Your task to perform on an android device: Open Reddit.com Image 0: 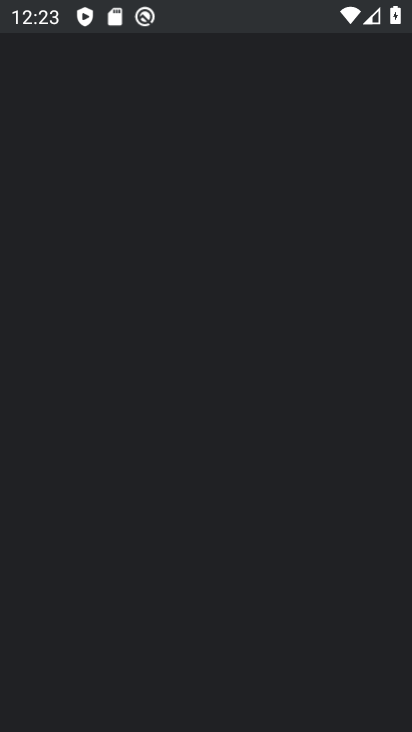
Step 0: press home button
Your task to perform on an android device: Open Reddit.com Image 1: 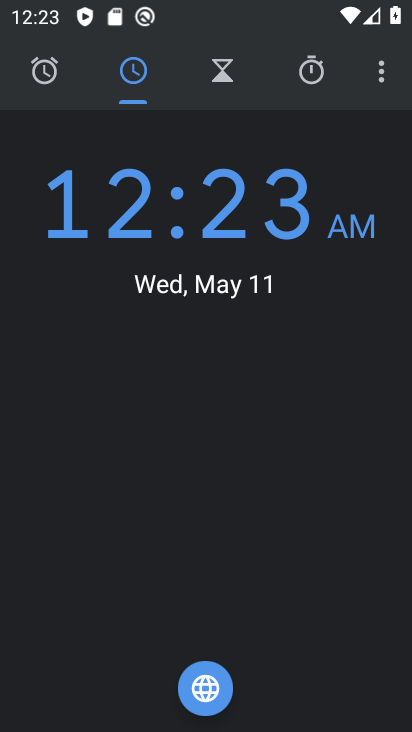
Step 1: press home button
Your task to perform on an android device: Open Reddit.com Image 2: 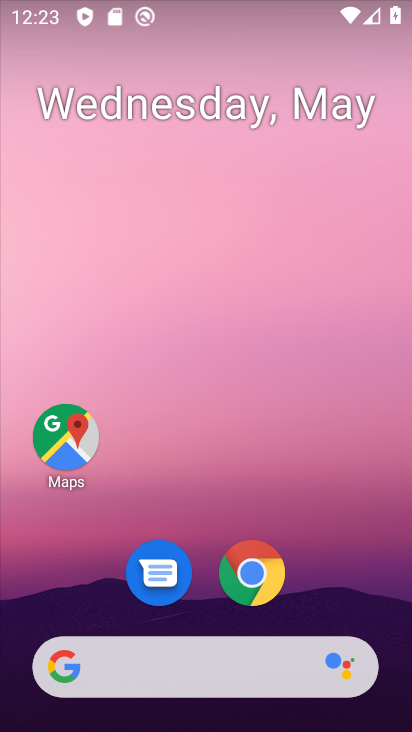
Step 2: click (264, 571)
Your task to perform on an android device: Open Reddit.com Image 3: 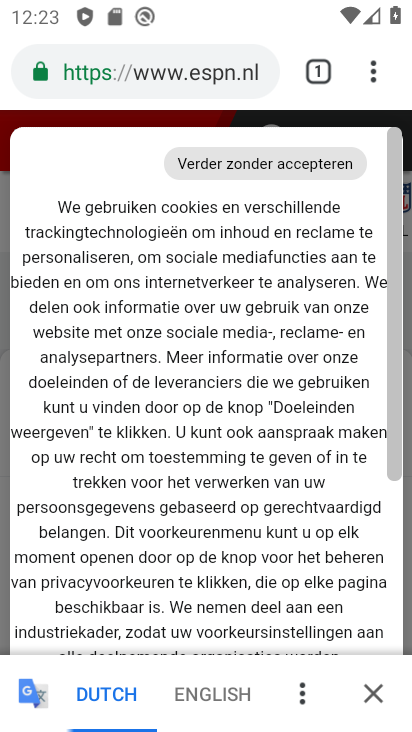
Step 3: click (174, 78)
Your task to perform on an android device: Open Reddit.com Image 4: 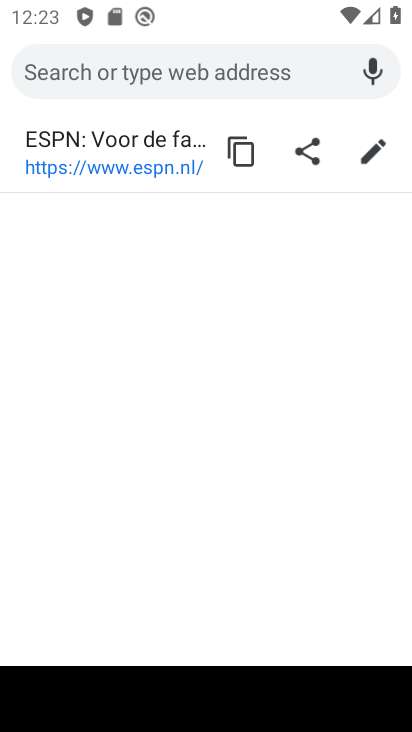
Step 4: type "Reddit.com"
Your task to perform on an android device: Open Reddit.com Image 5: 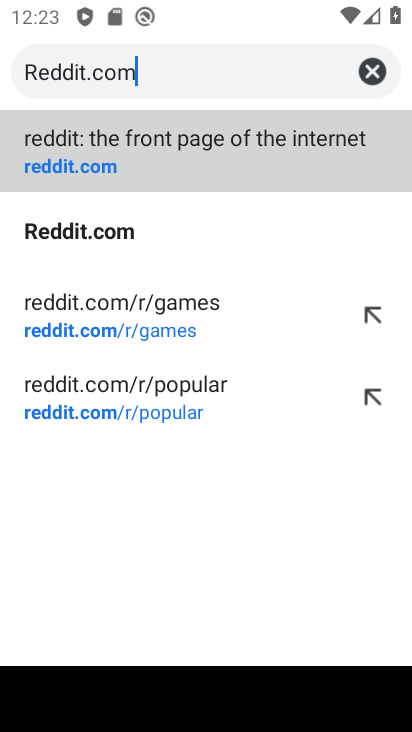
Step 5: click (126, 162)
Your task to perform on an android device: Open Reddit.com Image 6: 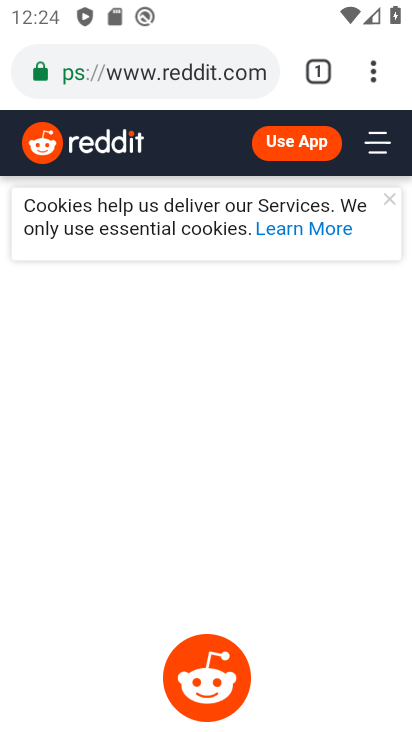
Step 6: task complete